Your task to perform on an android device: Open wifi settings Image 0: 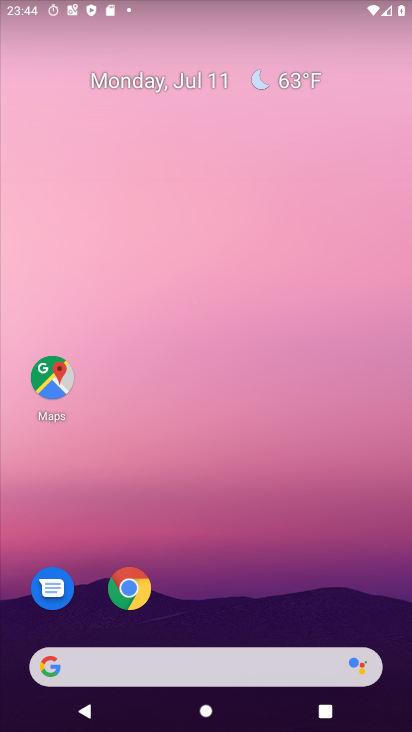
Step 0: drag from (244, 730) to (242, 89)
Your task to perform on an android device: Open wifi settings Image 1: 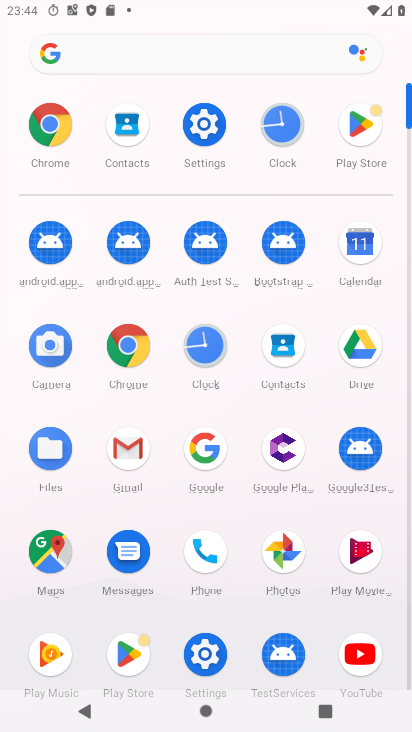
Step 1: click (198, 126)
Your task to perform on an android device: Open wifi settings Image 2: 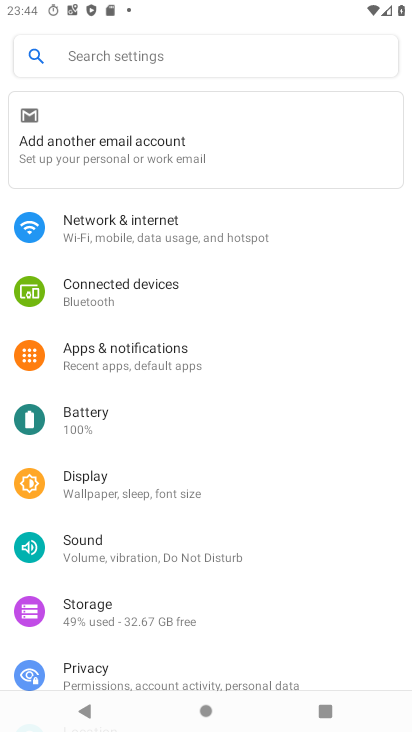
Step 2: click (111, 221)
Your task to perform on an android device: Open wifi settings Image 3: 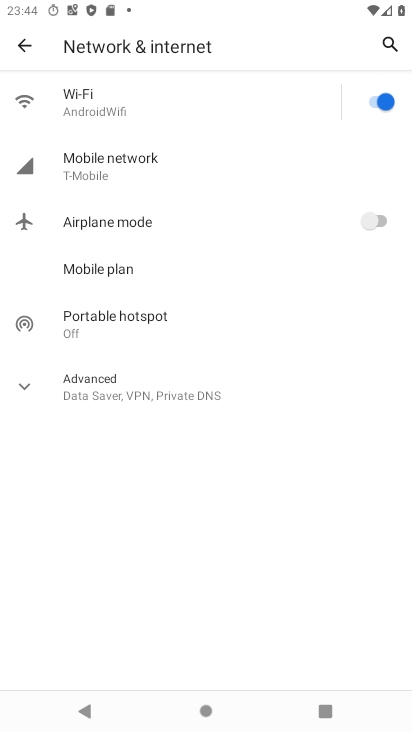
Step 3: click (73, 95)
Your task to perform on an android device: Open wifi settings Image 4: 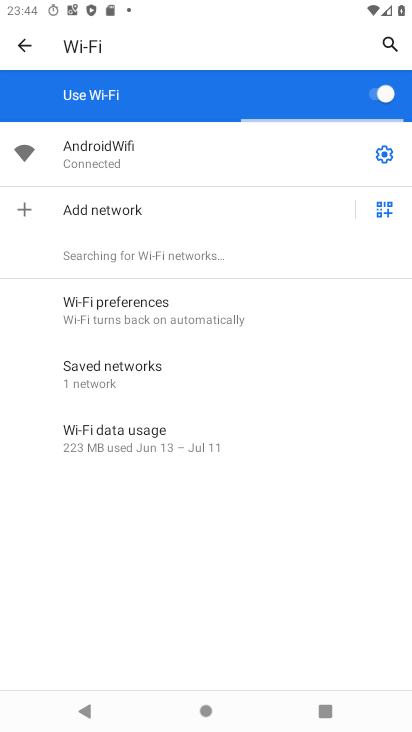
Step 4: task complete